Your task to perform on an android device: delete a single message in the gmail app Image 0: 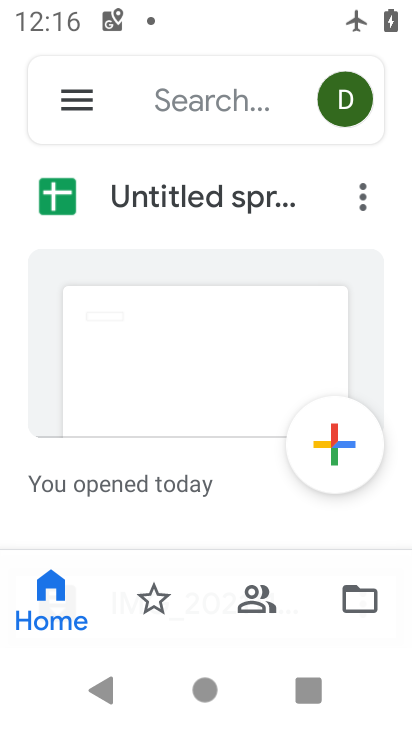
Step 0: press home button
Your task to perform on an android device: delete a single message in the gmail app Image 1: 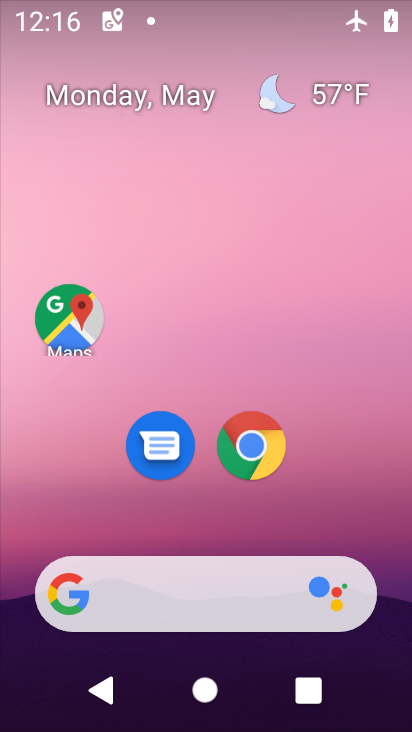
Step 1: drag from (343, 480) to (287, 140)
Your task to perform on an android device: delete a single message in the gmail app Image 2: 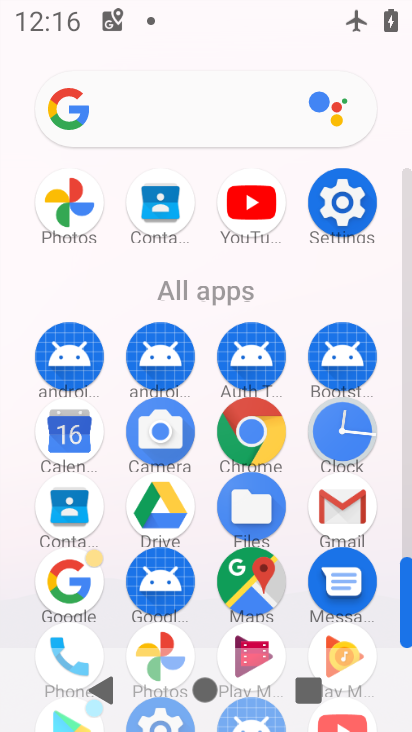
Step 2: click (338, 508)
Your task to perform on an android device: delete a single message in the gmail app Image 3: 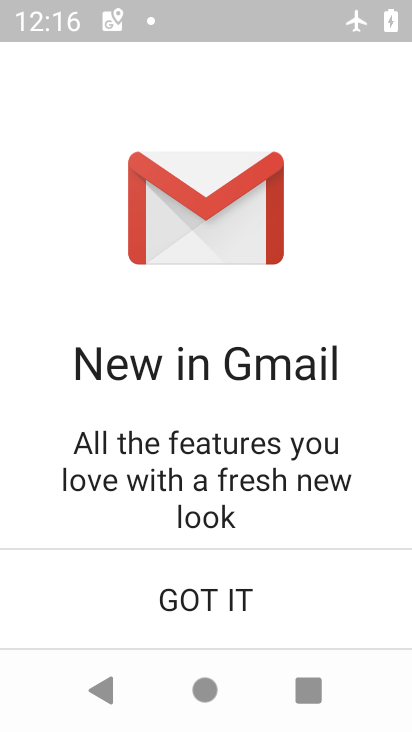
Step 3: click (331, 451)
Your task to perform on an android device: delete a single message in the gmail app Image 4: 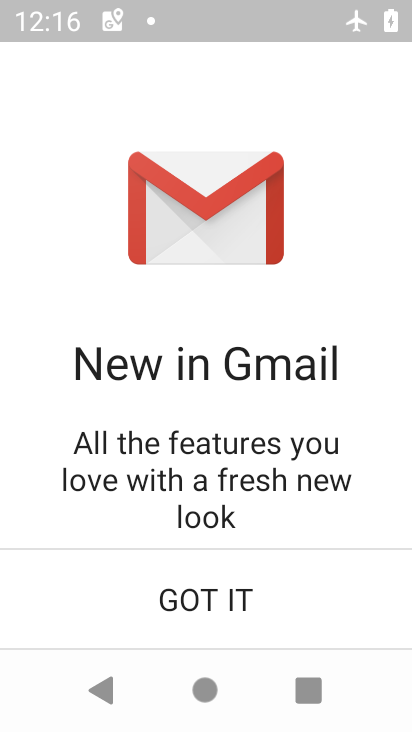
Step 4: task complete